Your task to perform on an android device: Open calendar and show me the fourth week of next month Image 0: 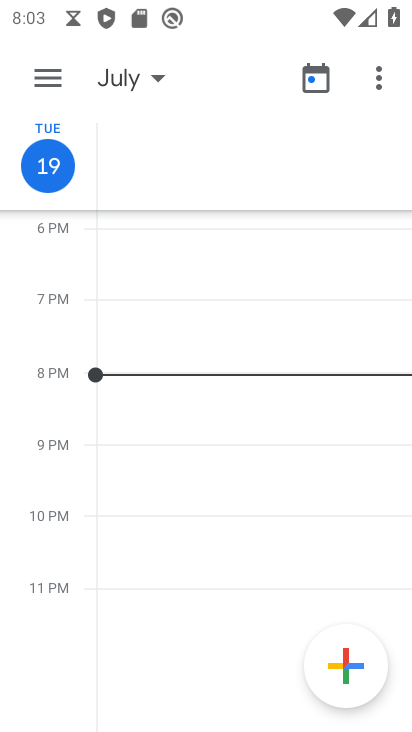
Step 0: press back button
Your task to perform on an android device: Open calendar and show me the fourth week of next month Image 1: 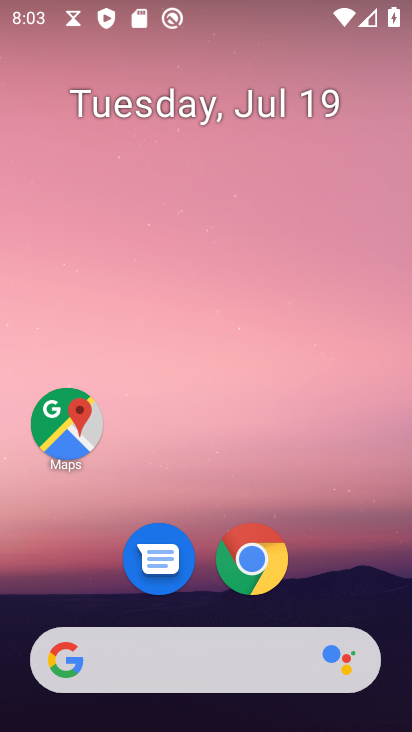
Step 1: drag from (84, 537) to (199, 8)
Your task to perform on an android device: Open calendar and show me the fourth week of next month Image 2: 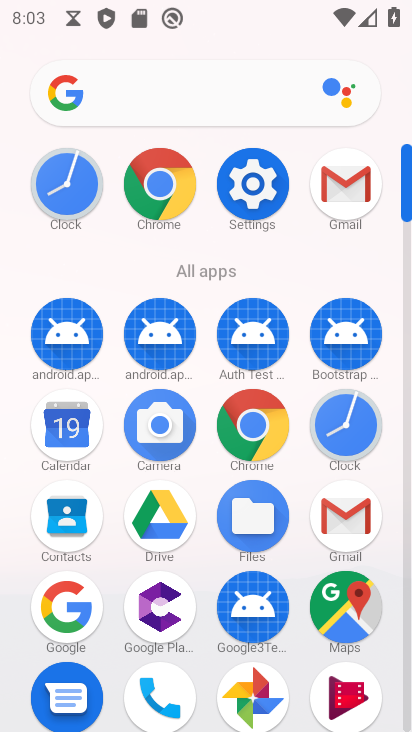
Step 2: click (54, 434)
Your task to perform on an android device: Open calendar and show me the fourth week of next month Image 3: 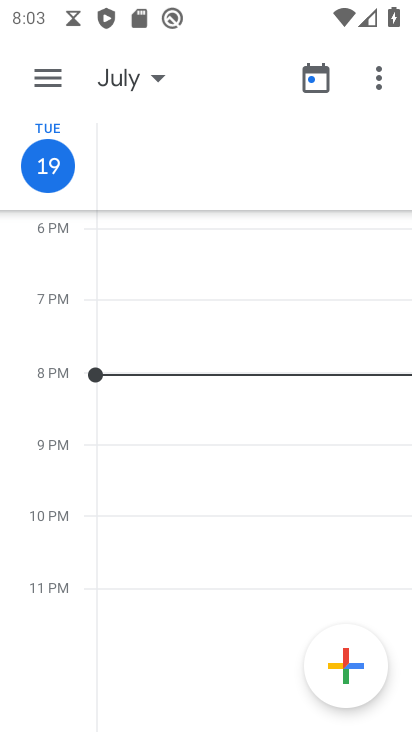
Step 3: click (146, 55)
Your task to perform on an android device: Open calendar and show me the fourth week of next month Image 4: 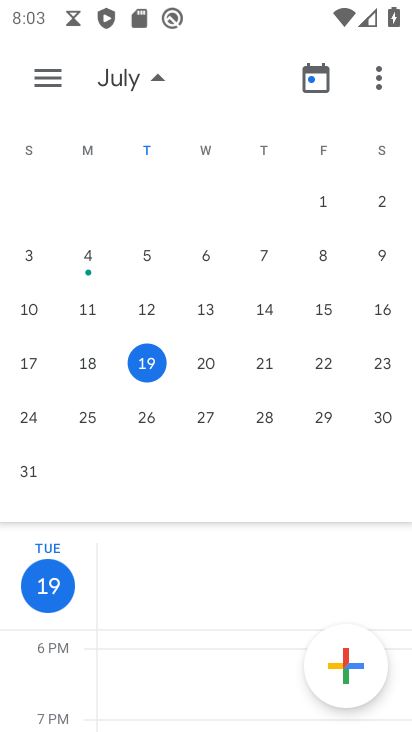
Step 4: drag from (382, 341) to (36, 272)
Your task to perform on an android device: Open calendar and show me the fourth week of next month Image 5: 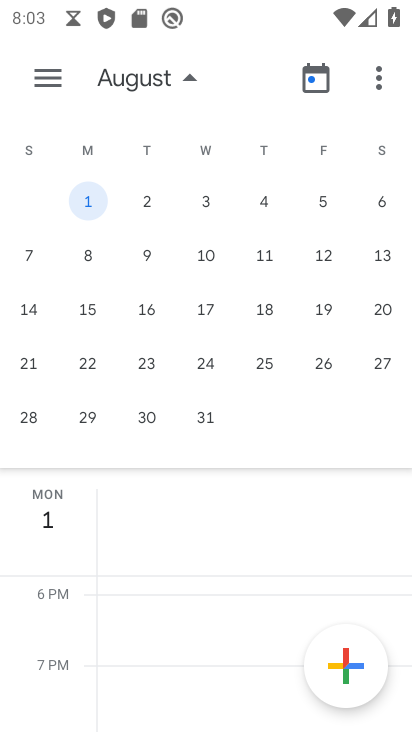
Step 5: click (95, 359)
Your task to perform on an android device: Open calendar and show me the fourth week of next month Image 6: 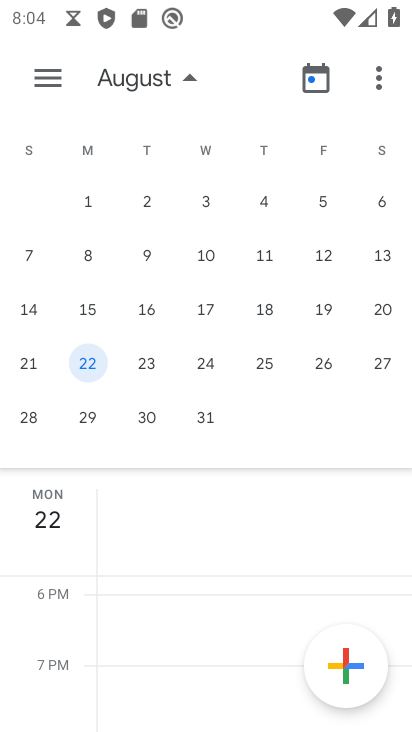
Step 6: task complete